Your task to perform on an android device: Search for vegetarian restaurants on Maps Image 0: 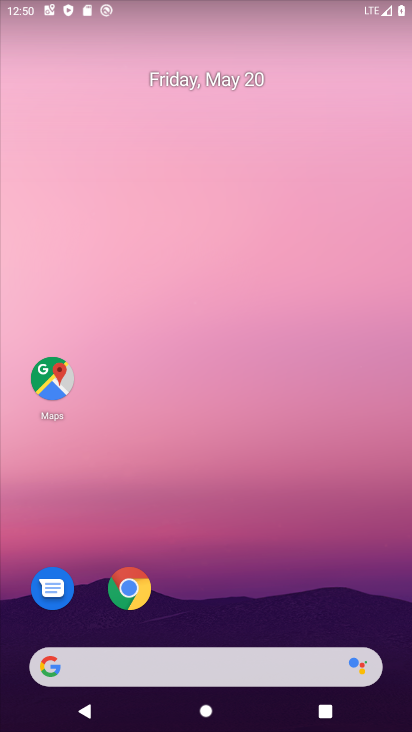
Step 0: click (52, 376)
Your task to perform on an android device: Search for vegetarian restaurants on Maps Image 1: 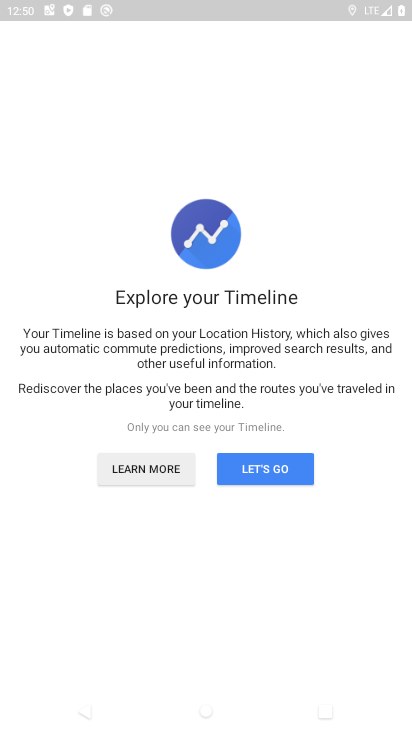
Step 1: press back button
Your task to perform on an android device: Search for vegetarian restaurants on Maps Image 2: 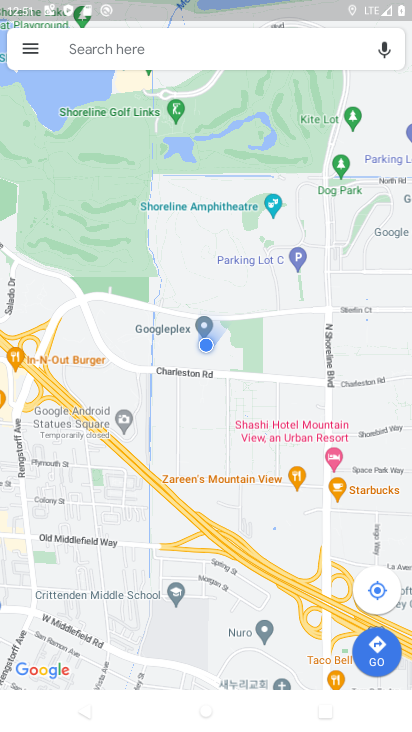
Step 2: click (160, 41)
Your task to perform on an android device: Search for vegetarian restaurants on Maps Image 3: 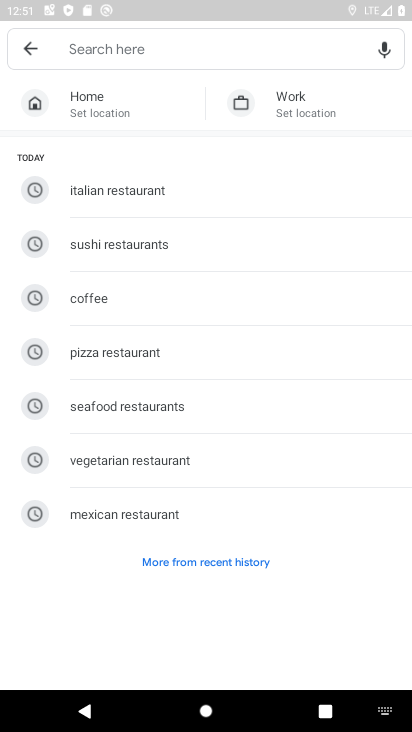
Step 3: type "vegetarian restaurants"
Your task to perform on an android device: Search for vegetarian restaurants on Maps Image 4: 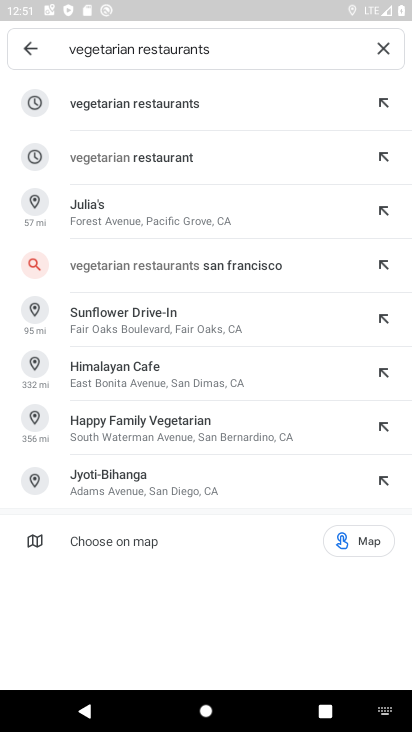
Step 4: click (133, 100)
Your task to perform on an android device: Search for vegetarian restaurants on Maps Image 5: 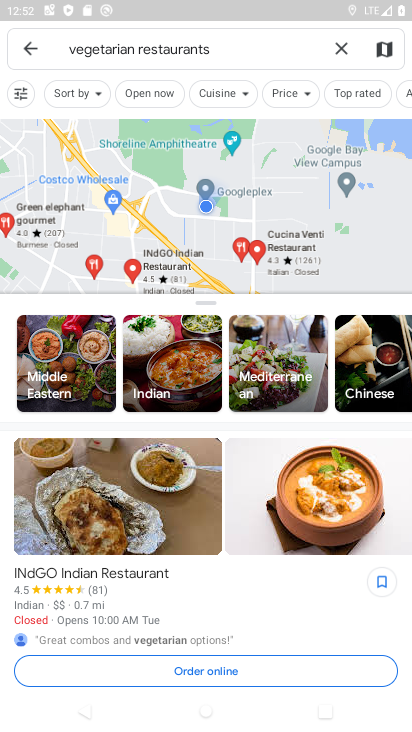
Step 5: task complete